Your task to perform on an android device: Open Amazon Image 0: 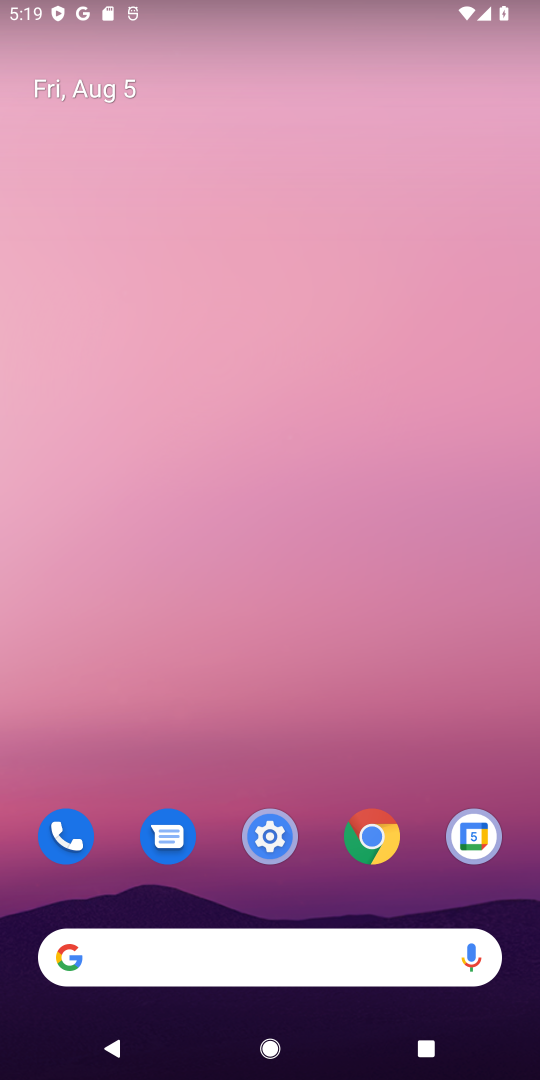
Step 0: press home button
Your task to perform on an android device: Open Amazon Image 1: 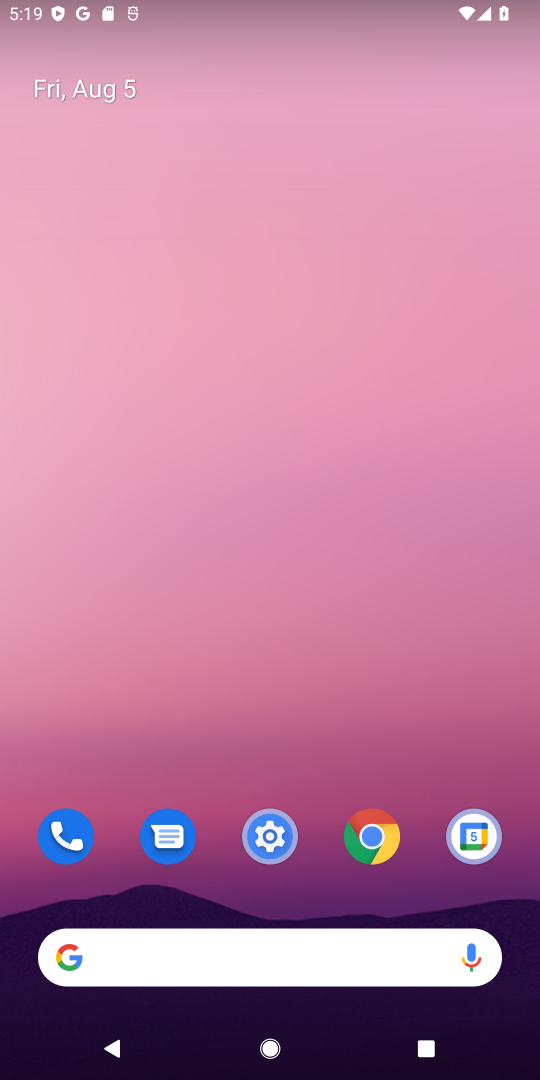
Step 1: drag from (316, 881) to (381, 54)
Your task to perform on an android device: Open Amazon Image 2: 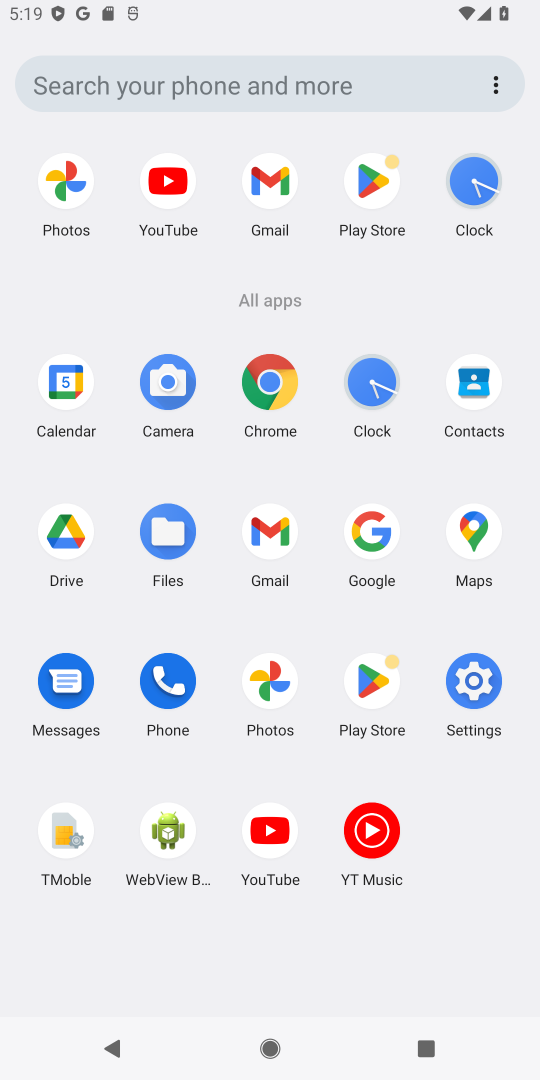
Step 2: click (269, 380)
Your task to perform on an android device: Open Amazon Image 3: 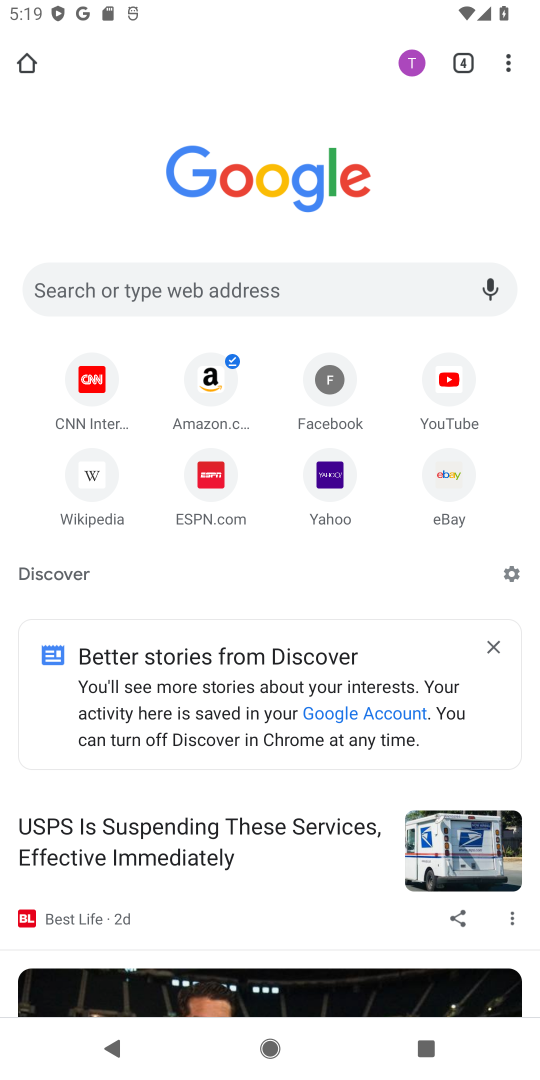
Step 3: click (454, 64)
Your task to perform on an android device: Open Amazon Image 4: 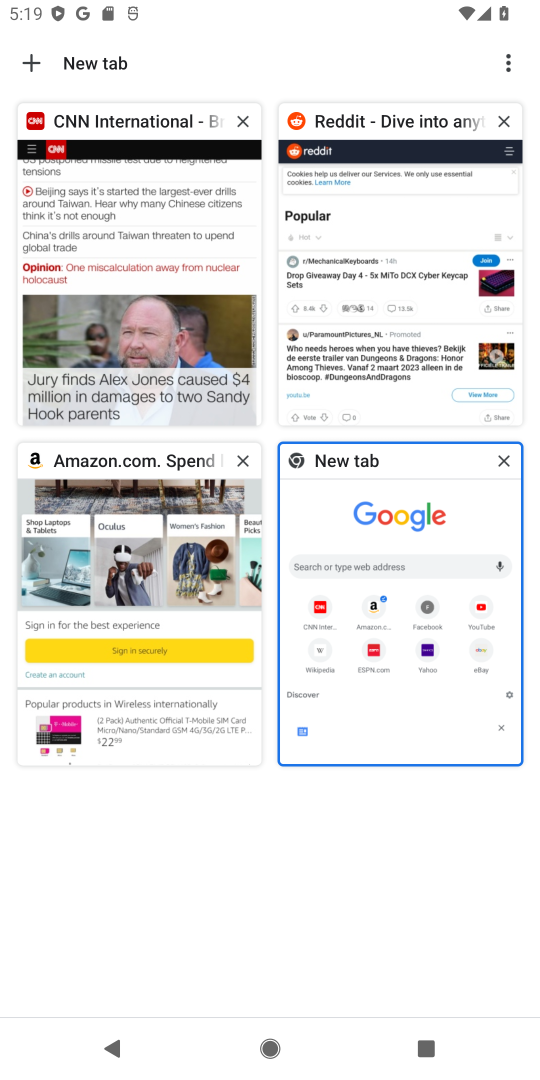
Step 4: click (128, 568)
Your task to perform on an android device: Open Amazon Image 5: 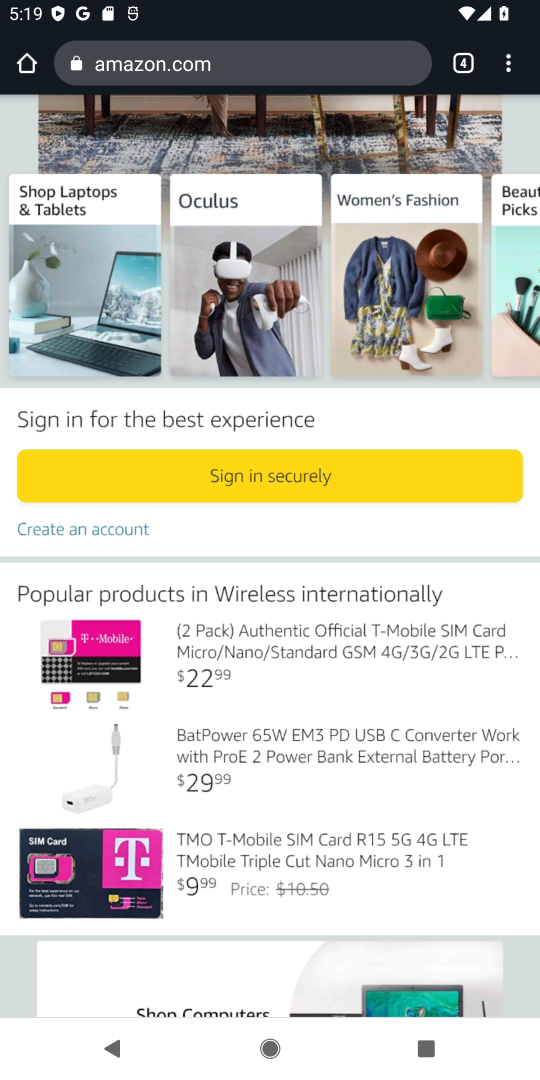
Step 5: task complete